Your task to perform on an android device: check android version Image 0: 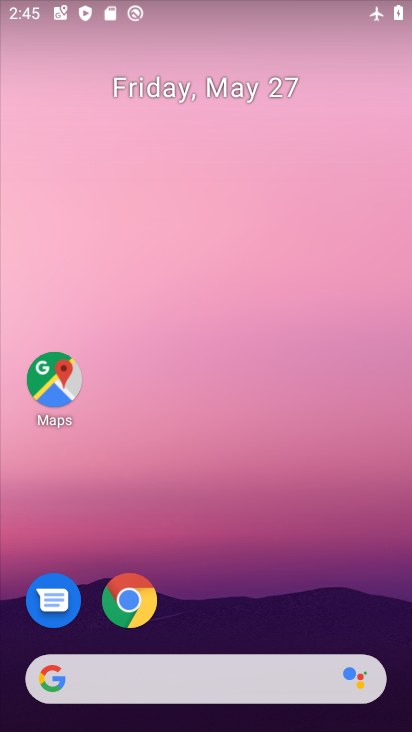
Step 0: drag from (340, 489) to (201, 3)
Your task to perform on an android device: check android version Image 1: 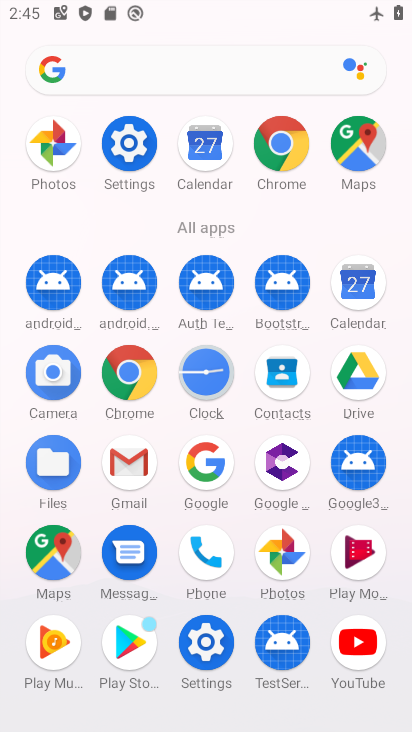
Step 1: click (128, 166)
Your task to perform on an android device: check android version Image 2: 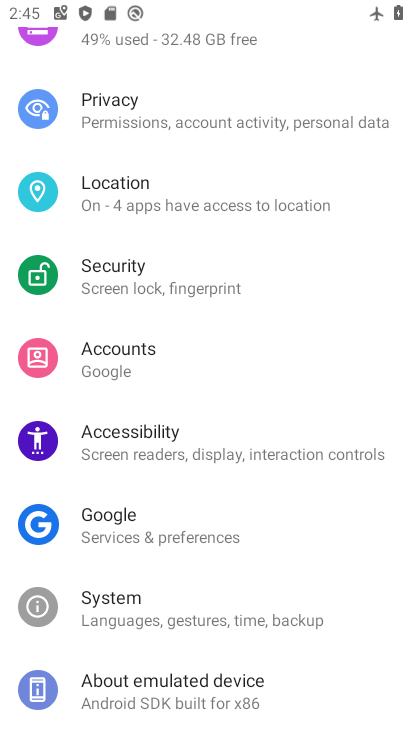
Step 2: drag from (291, 423) to (282, 0)
Your task to perform on an android device: check android version Image 3: 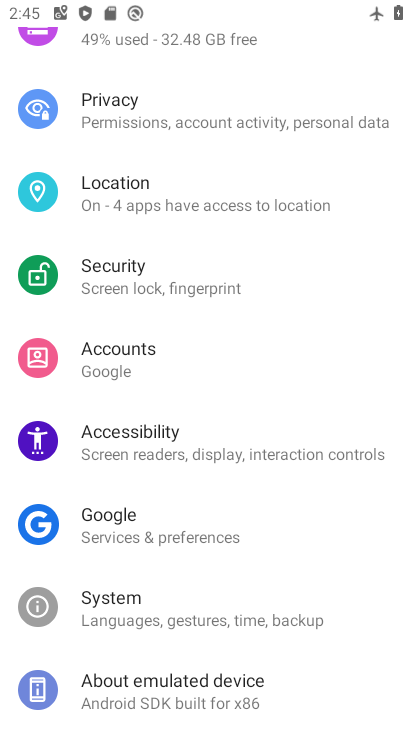
Step 3: click (190, 679)
Your task to perform on an android device: check android version Image 4: 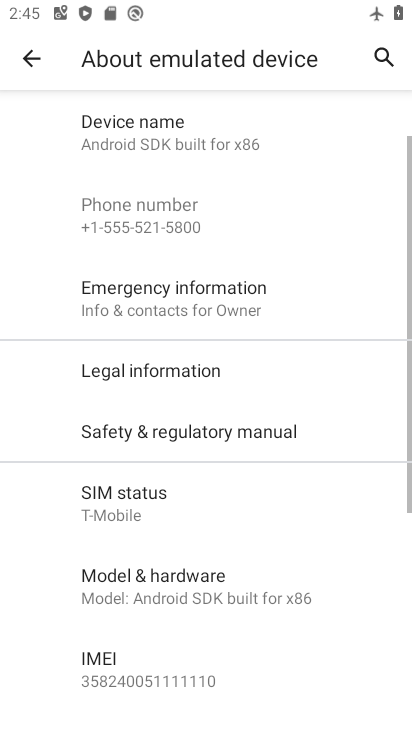
Step 4: drag from (237, 607) to (215, 354)
Your task to perform on an android device: check android version Image 5: 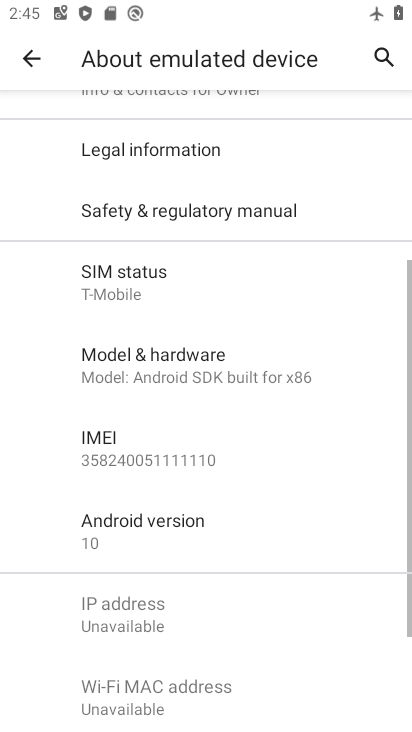
Step 5: click (224, 524)
Your task to perform on an android device: check android version Image 6: 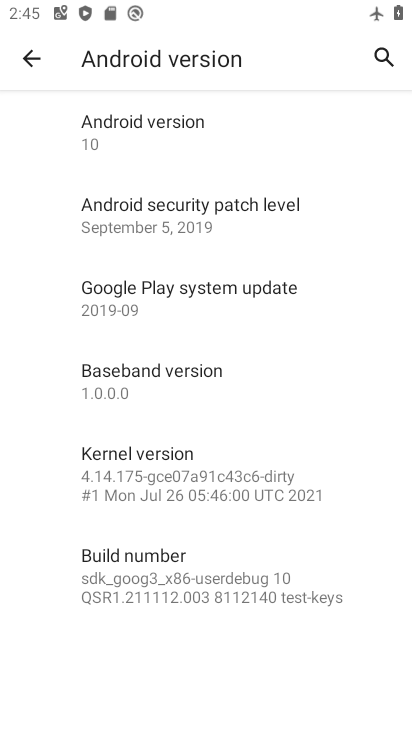
Step 6: task complete